Your task to perform on an android device: Open notification settings Image 0: 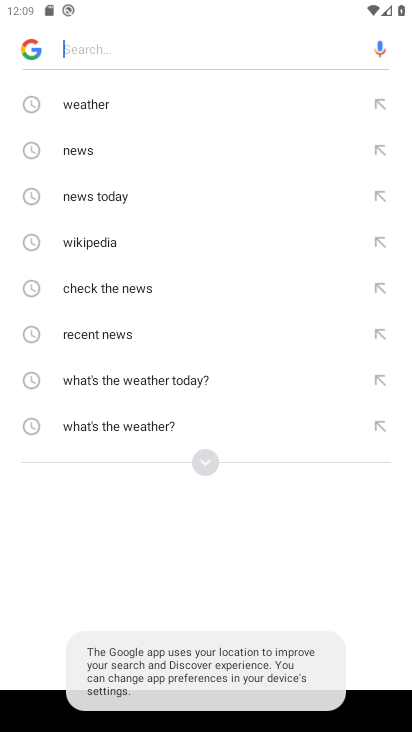
Step 0: press home button
Your task to perform on an android device: Open notification settings Image 1: 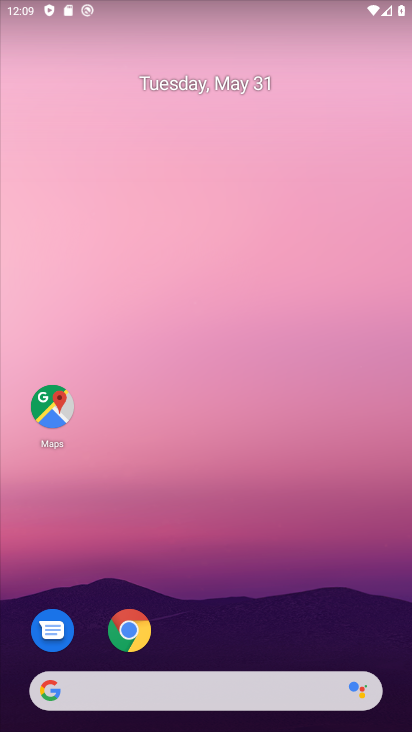
Step 1: drag from (282, 367) to (282, 295)
Your task to perform on an android device: Open notification settings Image 2: 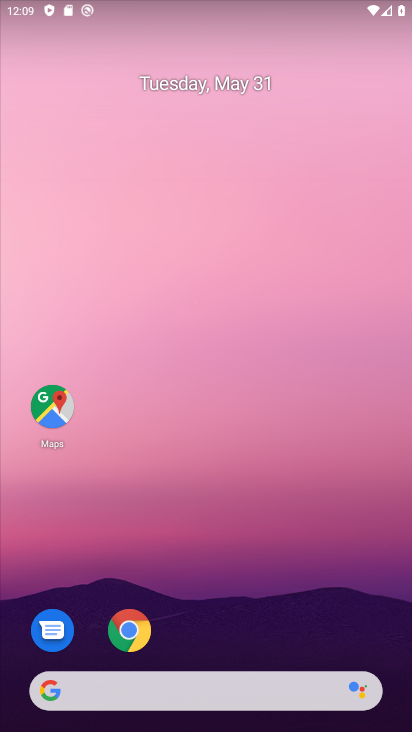
Step 2: drag from (238, 520) to (258, 137)
Your task to perform on an android device: Open notification settings Image 3: 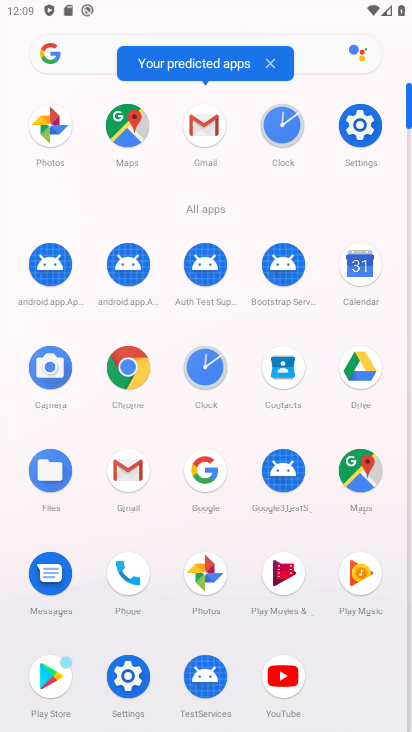
Step 3: click (365, 171)
Your task to perform on an android device: Open notification settings Image 4: 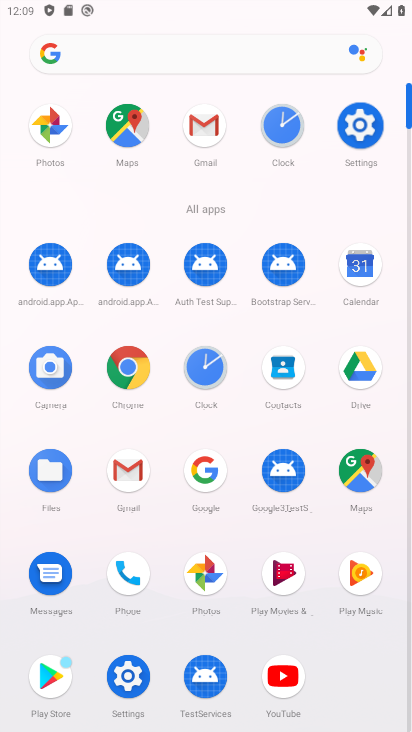
Step 4: click (365, 140)
Your task to perform on an android device: Open notification settings Image 5: 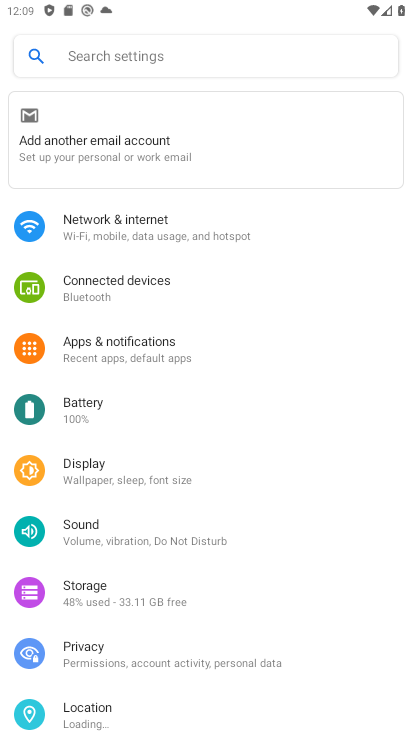
Step 5: click (135, 347)
Your task to perform on an android device: Open notification settings Image 6: 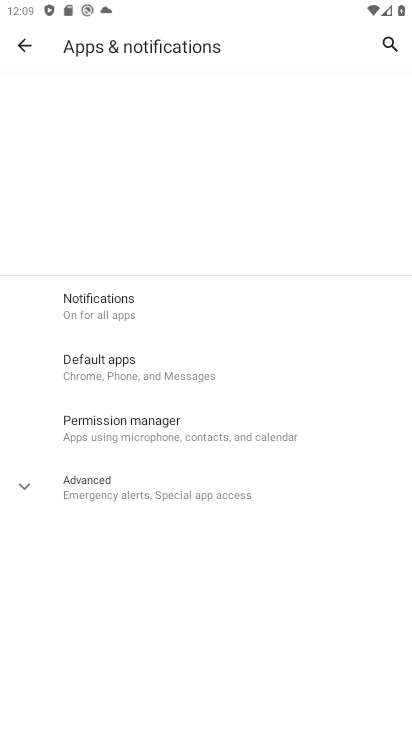
Step 6: click (127, 476)
Your task to perform on an android device: Open notification settings Image 7: 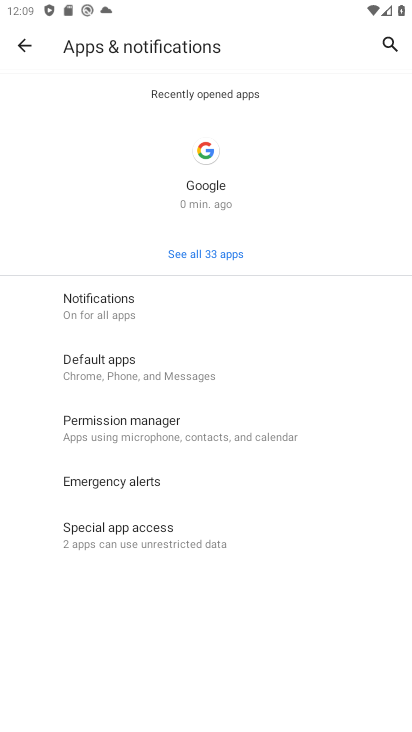
Step 7: task complete